Your task to perform on an android device: open app "Truecaller" (install if not already installed) Image 0: 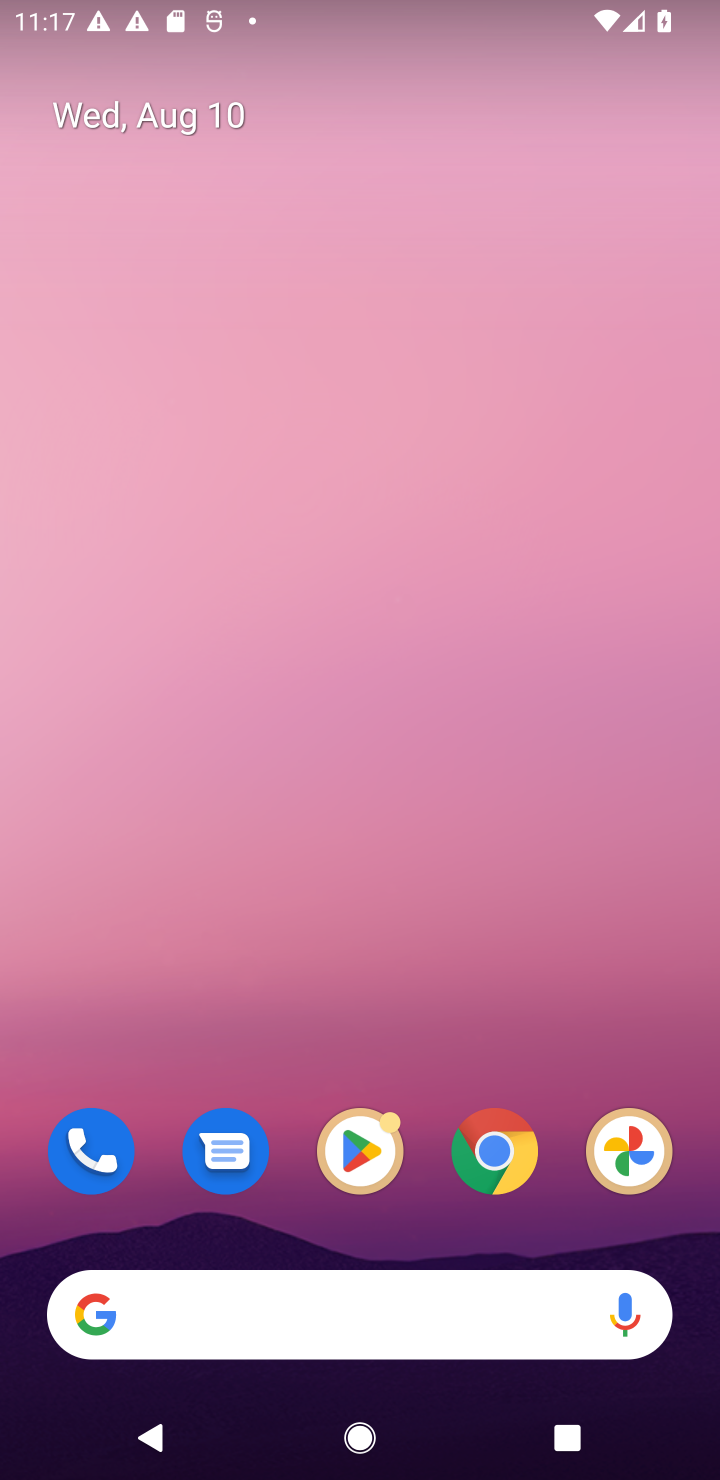
Step 0: press home button
Your task to perform on an android device: open app "Truecaller" (install if not already installed) Image 1: 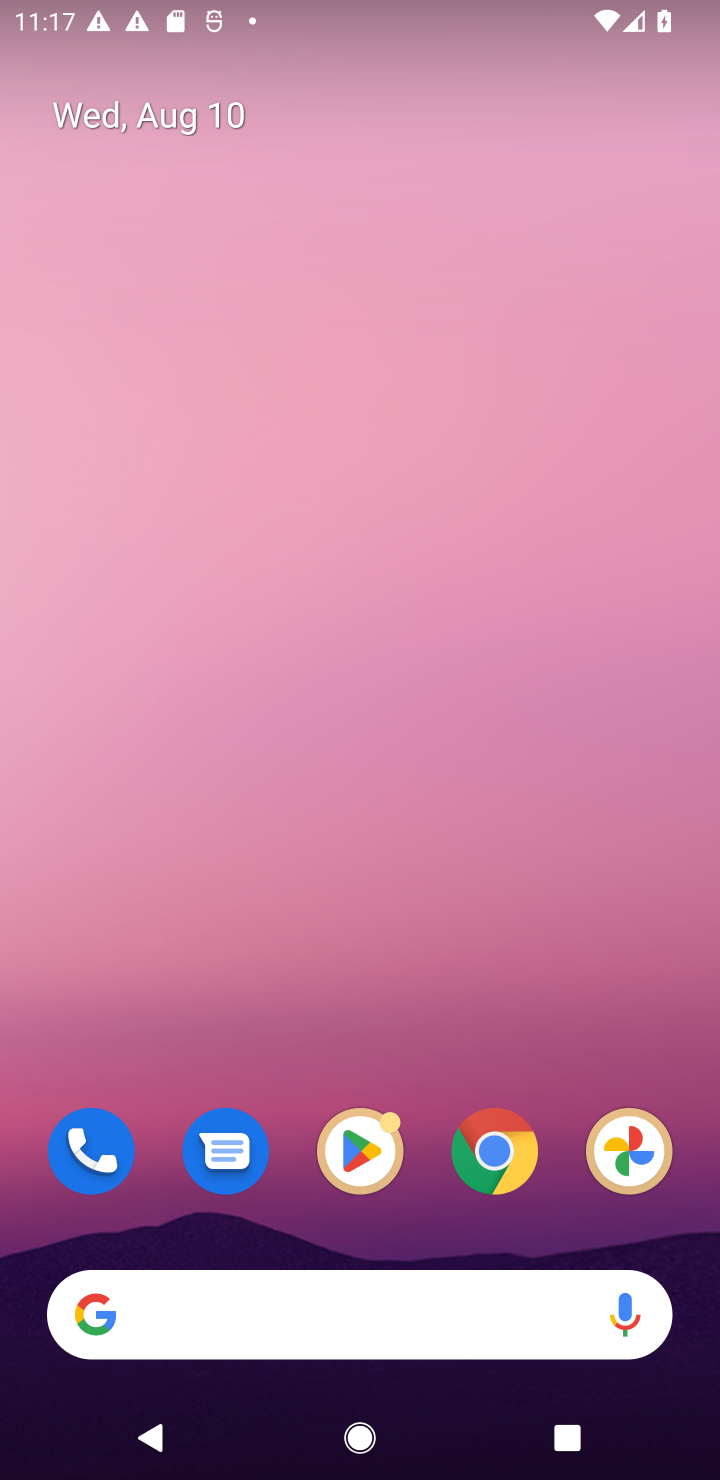
Step 1: drag from (419, 1220) to (382, 82)
Your task to perform on an android device: open app "Truecaller" (install if not already installed) Image 2: 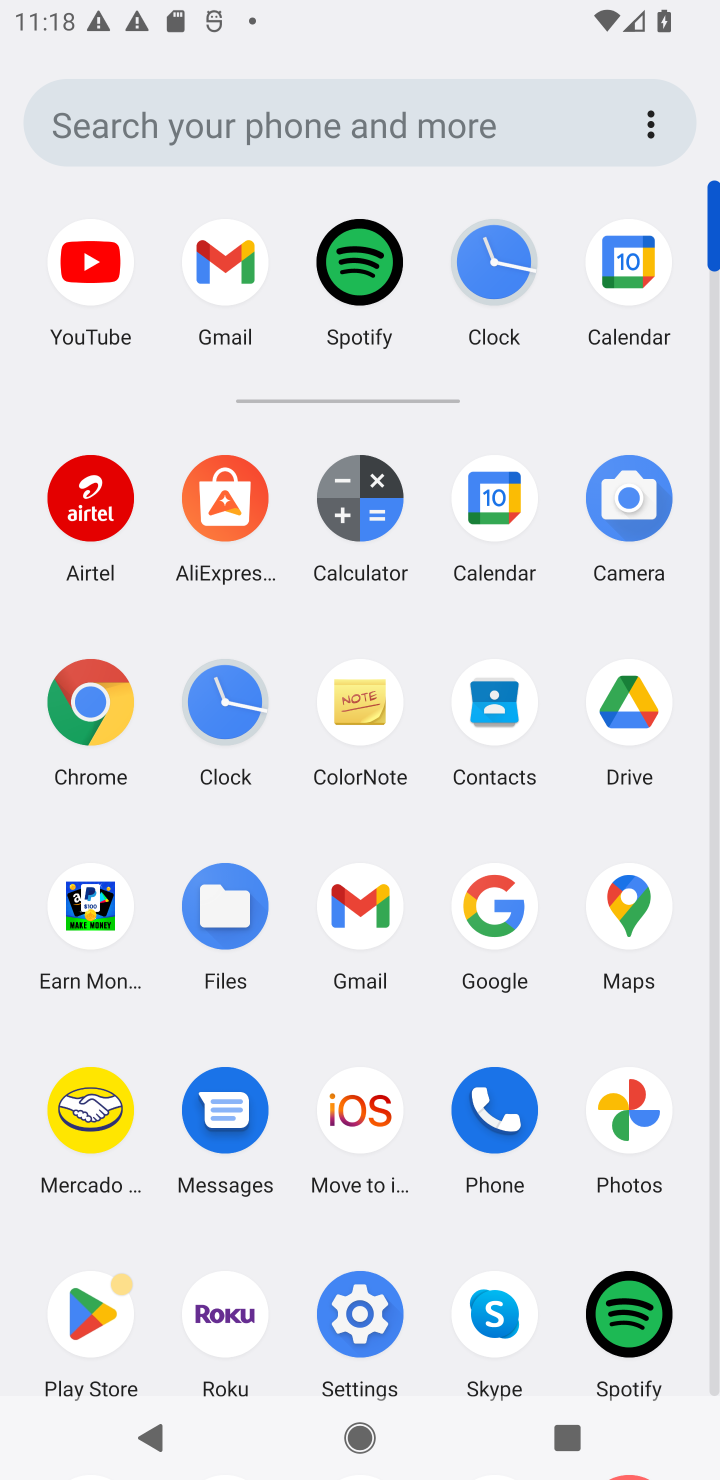
Step 2: click (81, 1301)
Your task to perform on an android device: open app "Truecaller" (install if not already installed) Image 3: 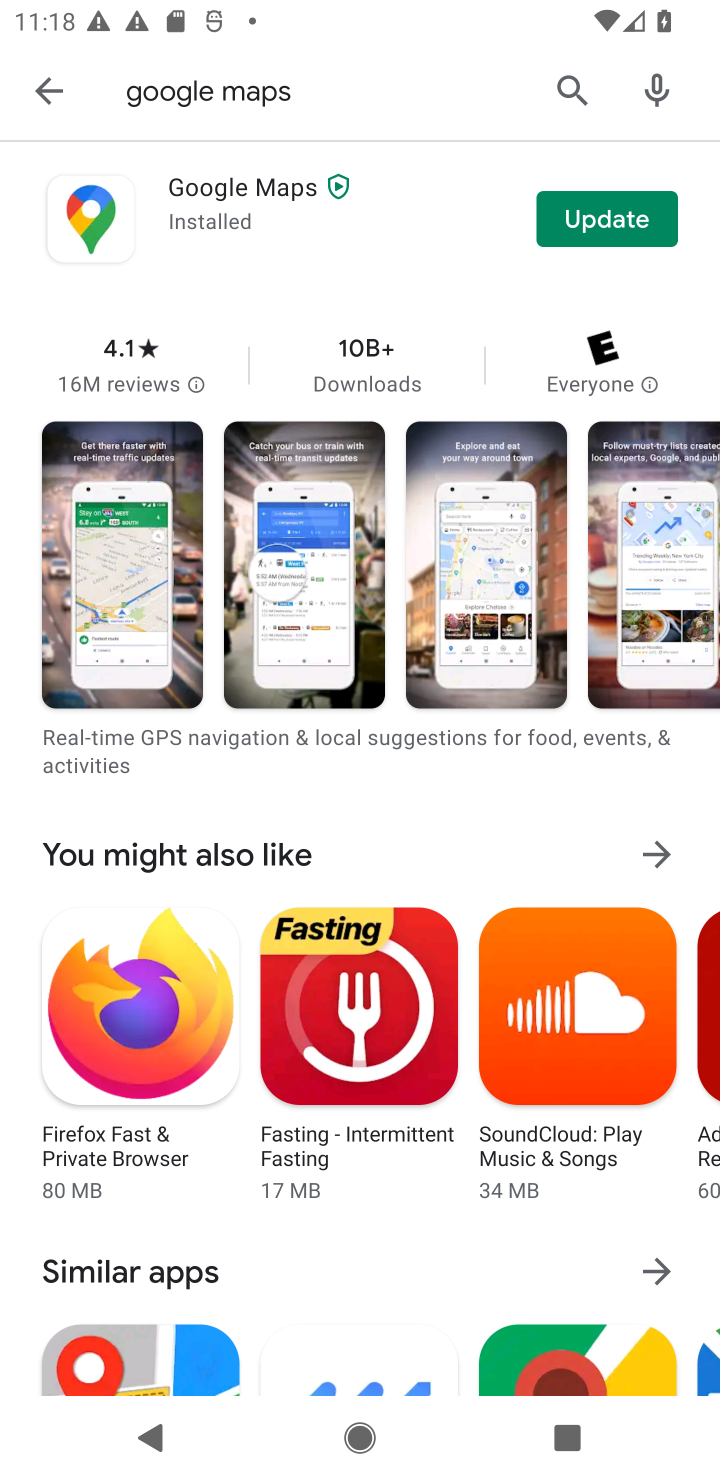
Step 3: click (549, 98)
Your task to perform on an android device: open app "Truecaller" (install if not already installed) Image 4: 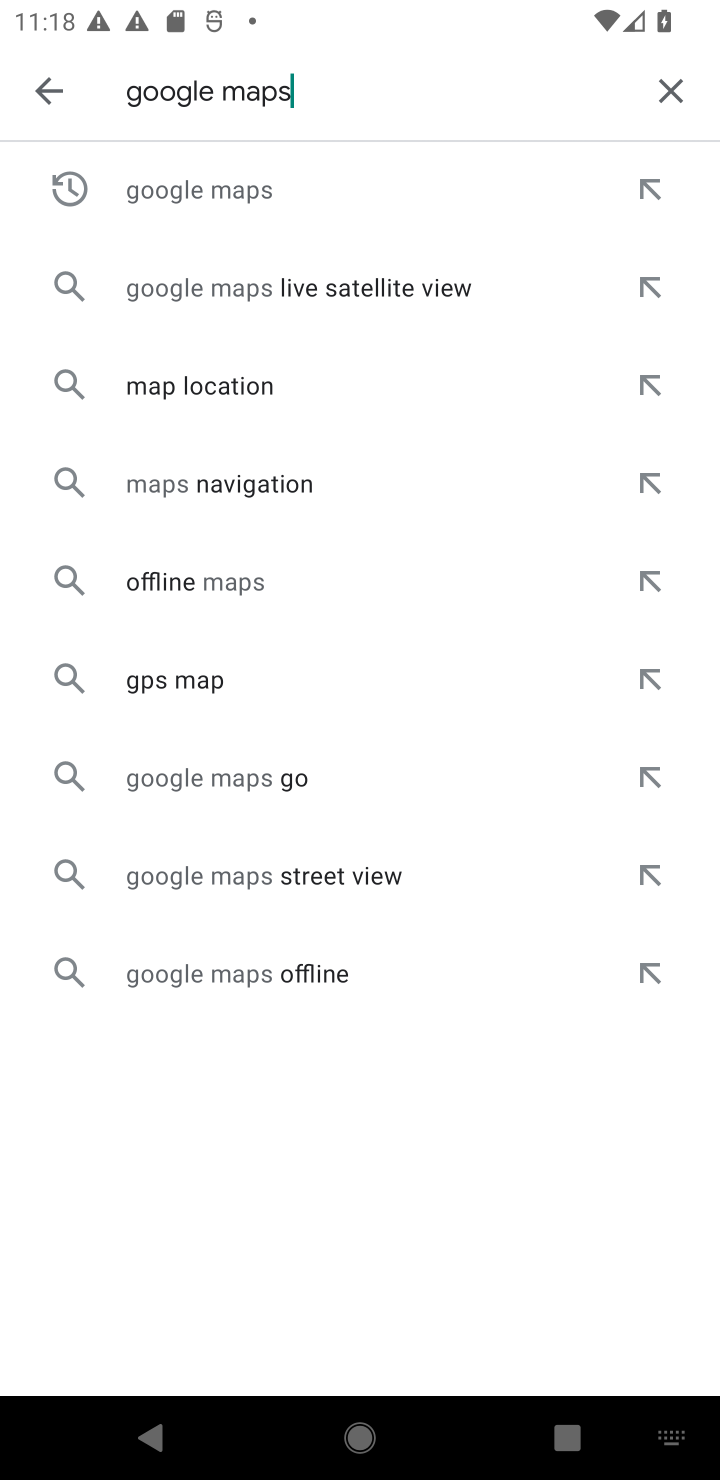
Step 4: click (688, 85)
Your task to perform on an android device: open app "Truecaller" (install if not already installed) Image 5: 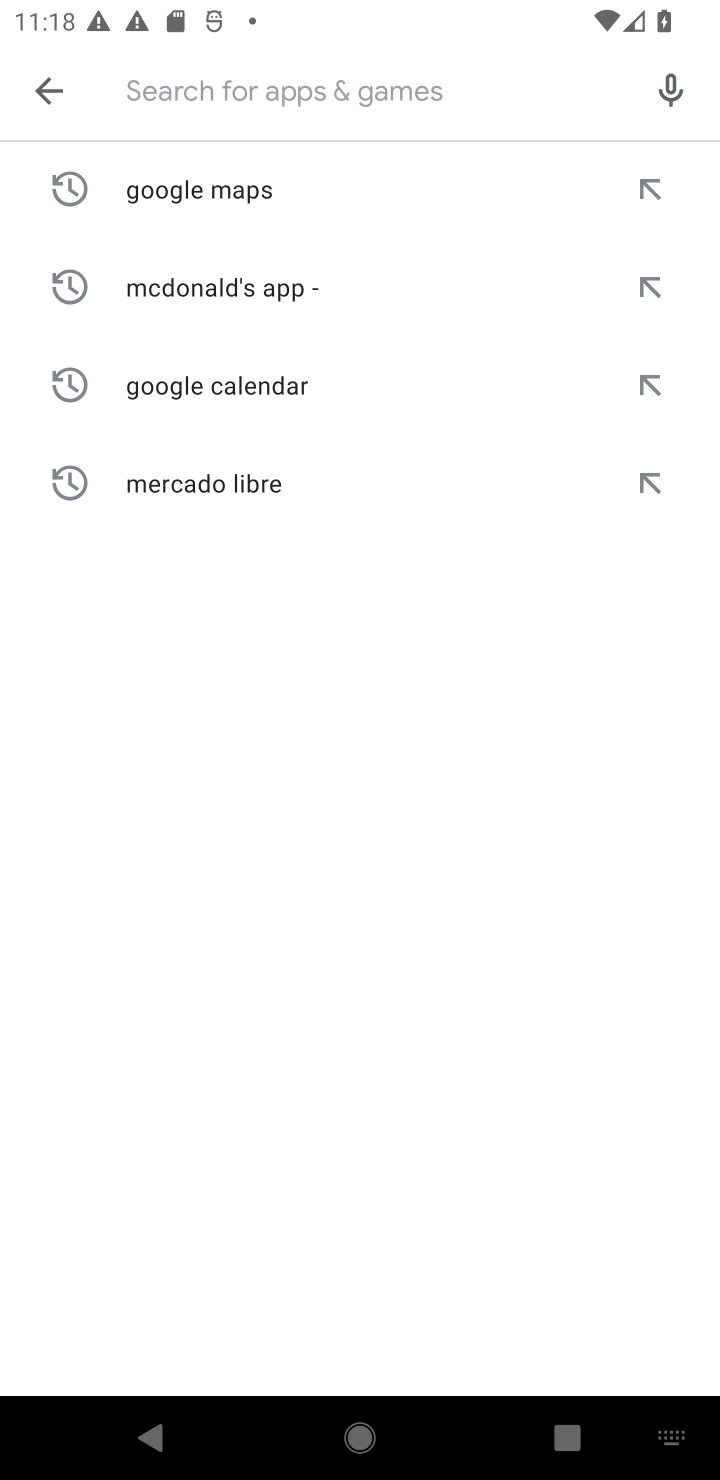
Step 5: type "Truecaller"
Your task to perform on an android device: open app "Truecaller" (install if not already installed) Image 6: 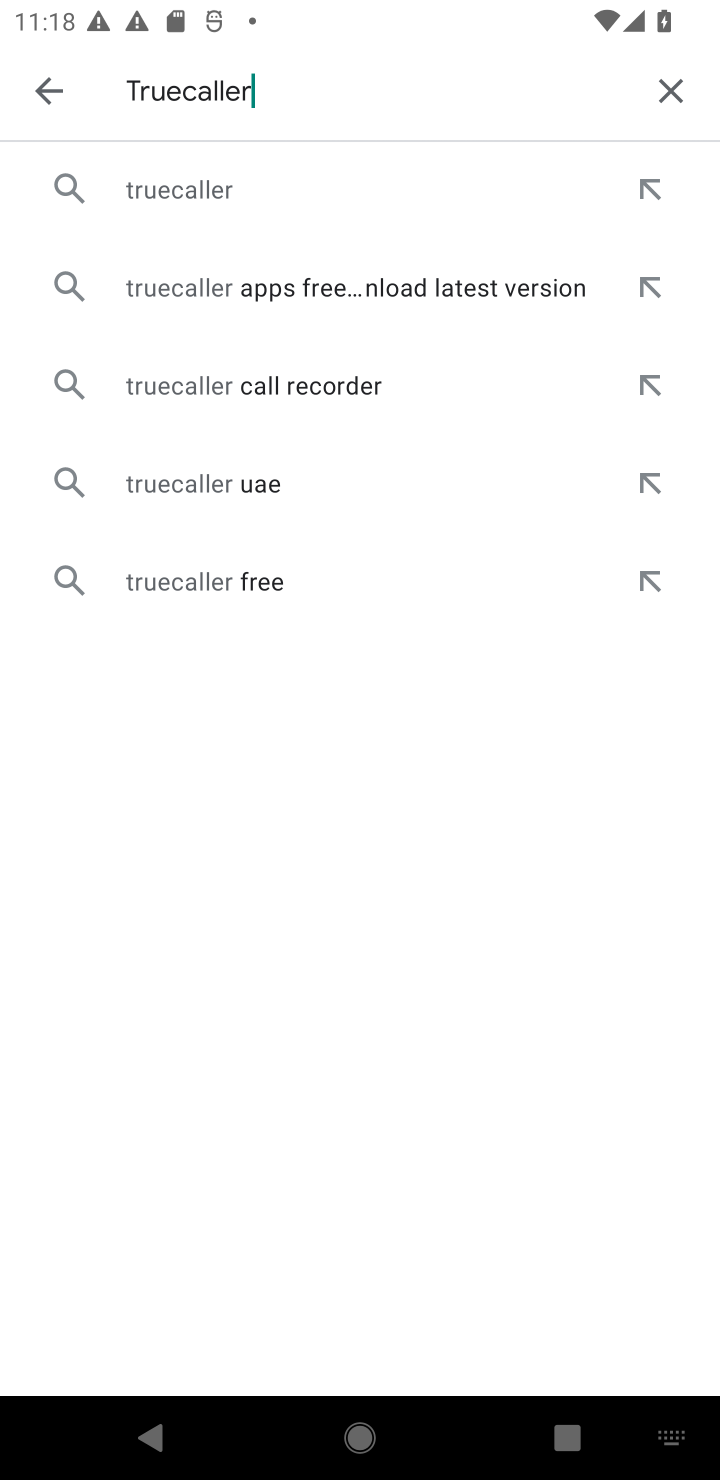
Step 6: click (238, 182)
Your task to perform on an android device: open app "Truecaller" (install if not already installed) Image 7: 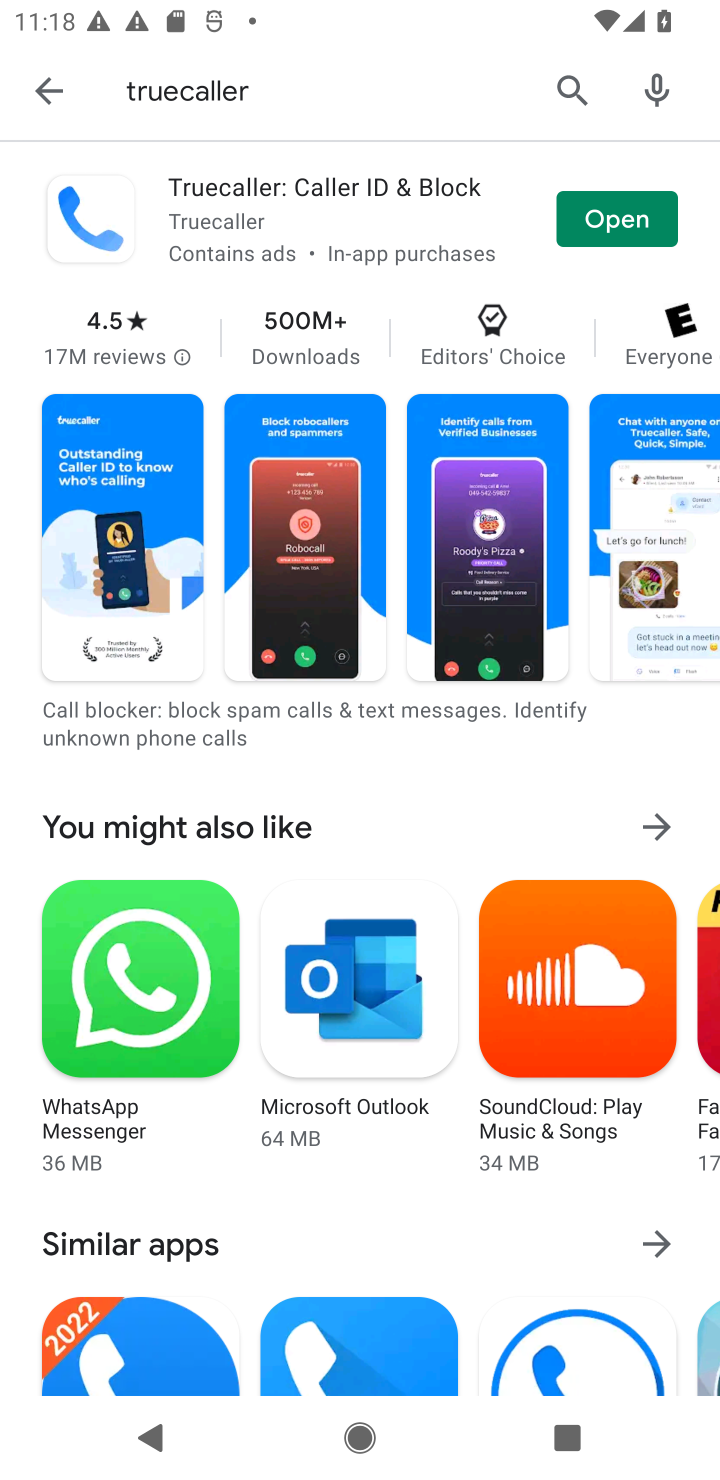
Step 7: click (604, 222)
Your task to perform on an android device: open app "Truecaller" (install if not already installed) Image 8: 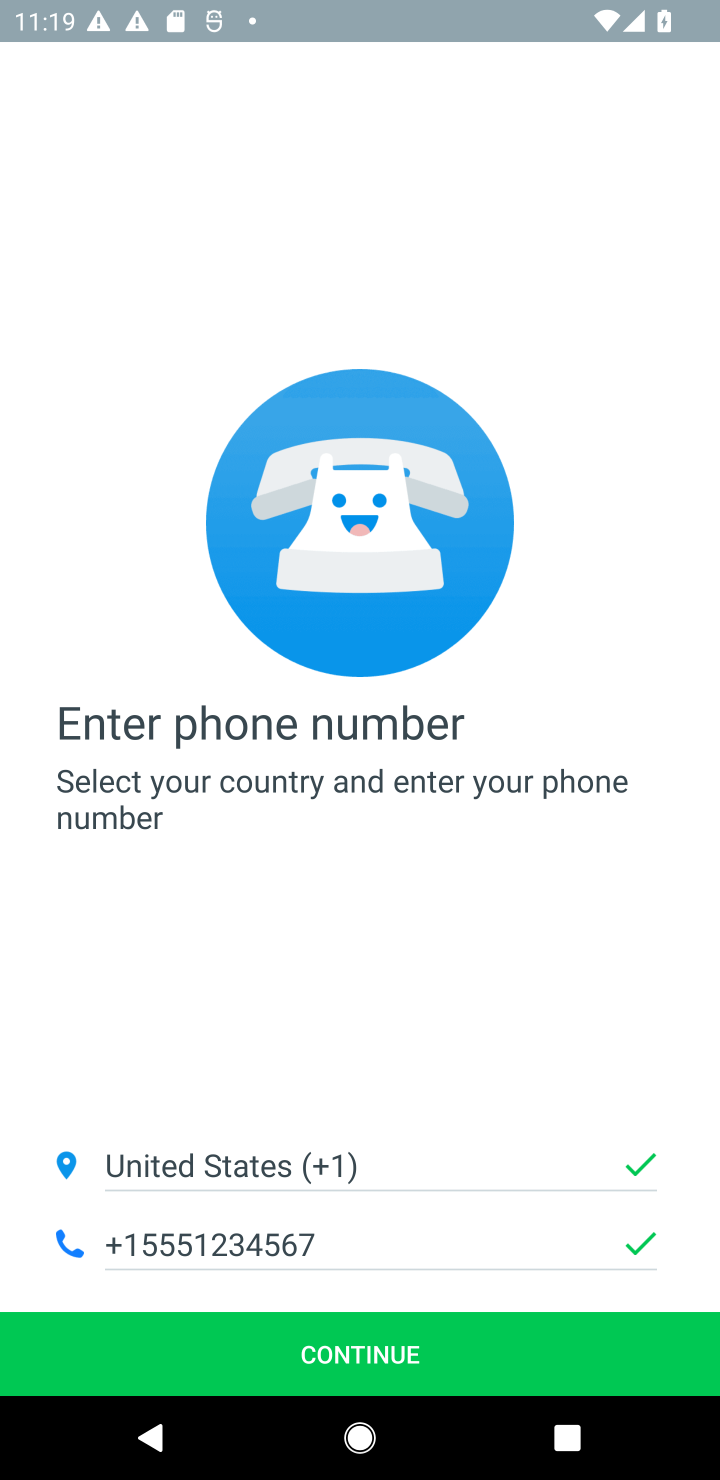
Step 8: press back button
Your task to perform on an android device: open app "Truecaller" (install if not already installed) Image 9: 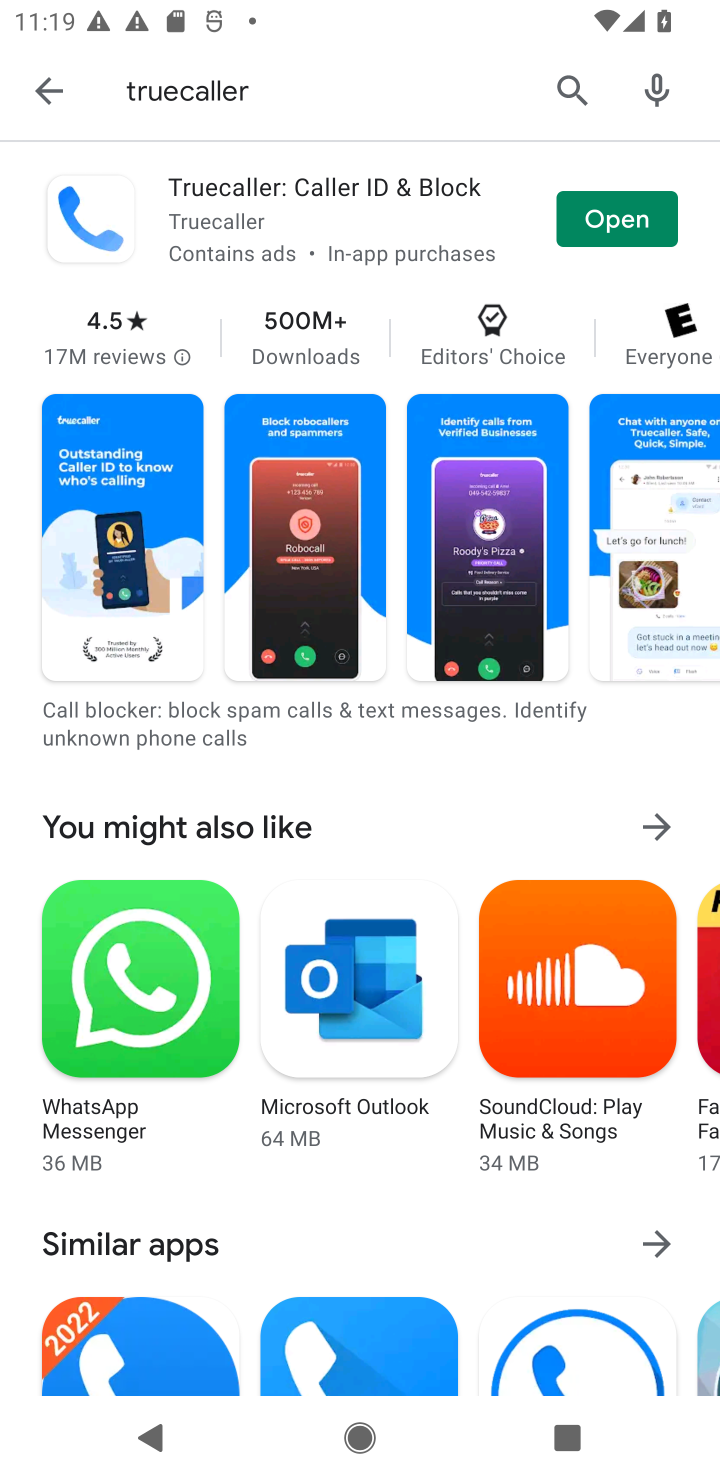
Step 9: click (592, 231)
Your task to perform on an android device: open app "Truecaller" (install if not already installed) Image 10: 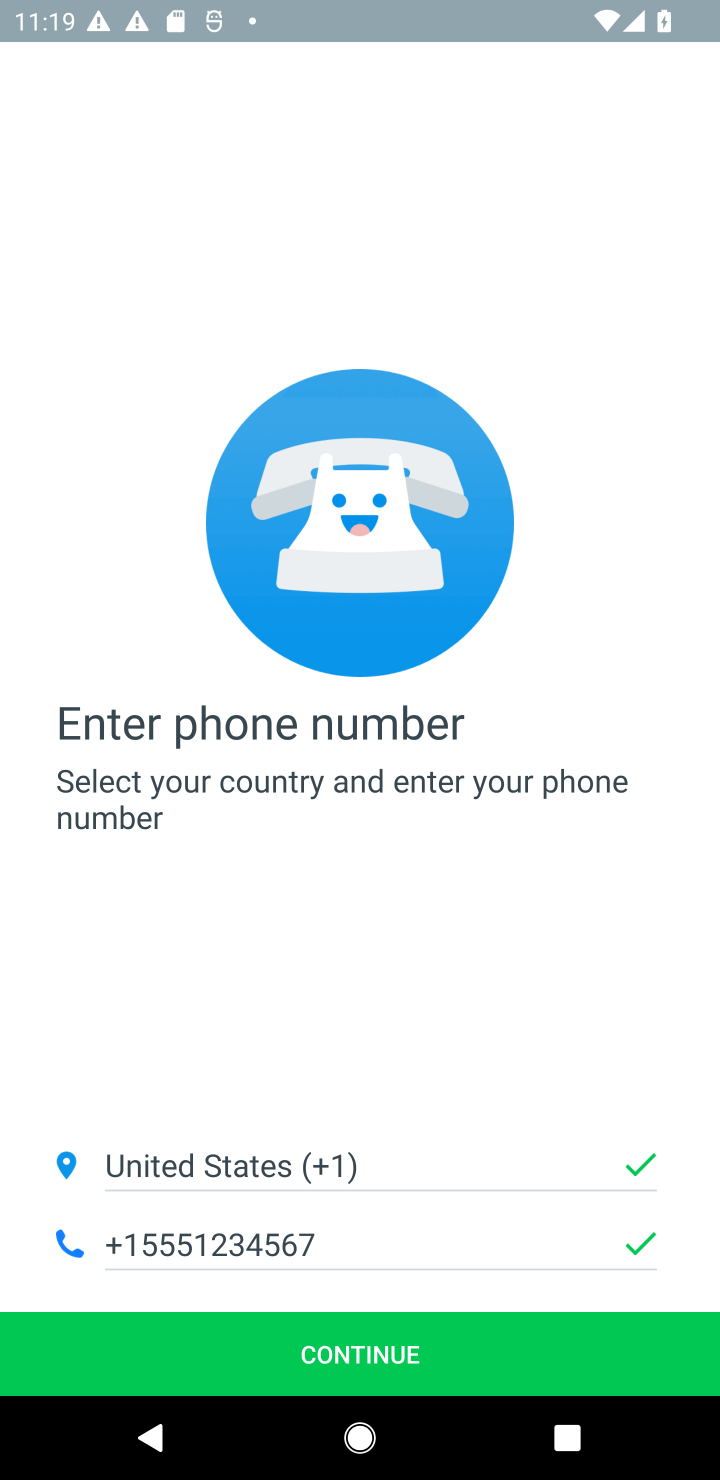
Step 10: click (335, 1346)
Your task to perform on an android device: open app "Truecaller" (install if not already installed) Image 11: 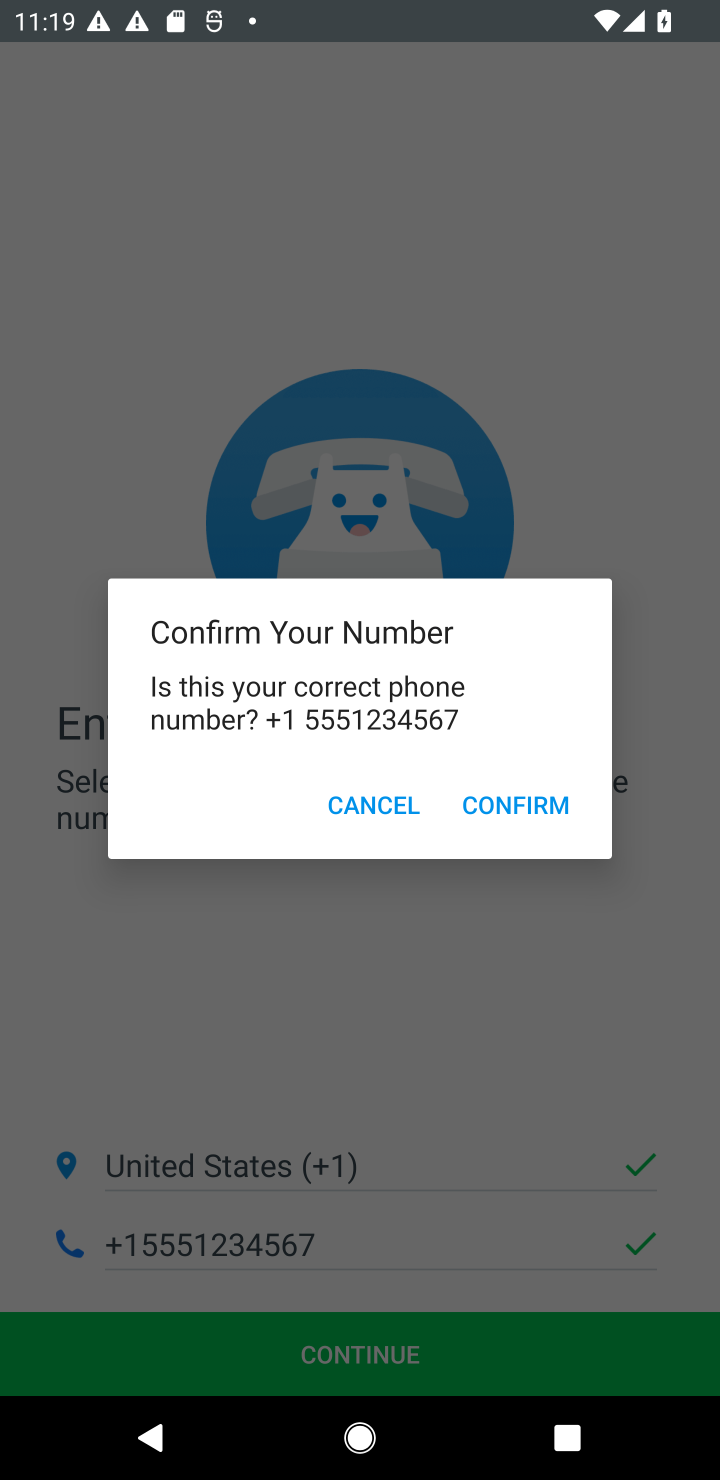
Step 11: click (387, 802)
Your task to perform on an android device: open app "Truecaller" (install if not already installed) Image 12: 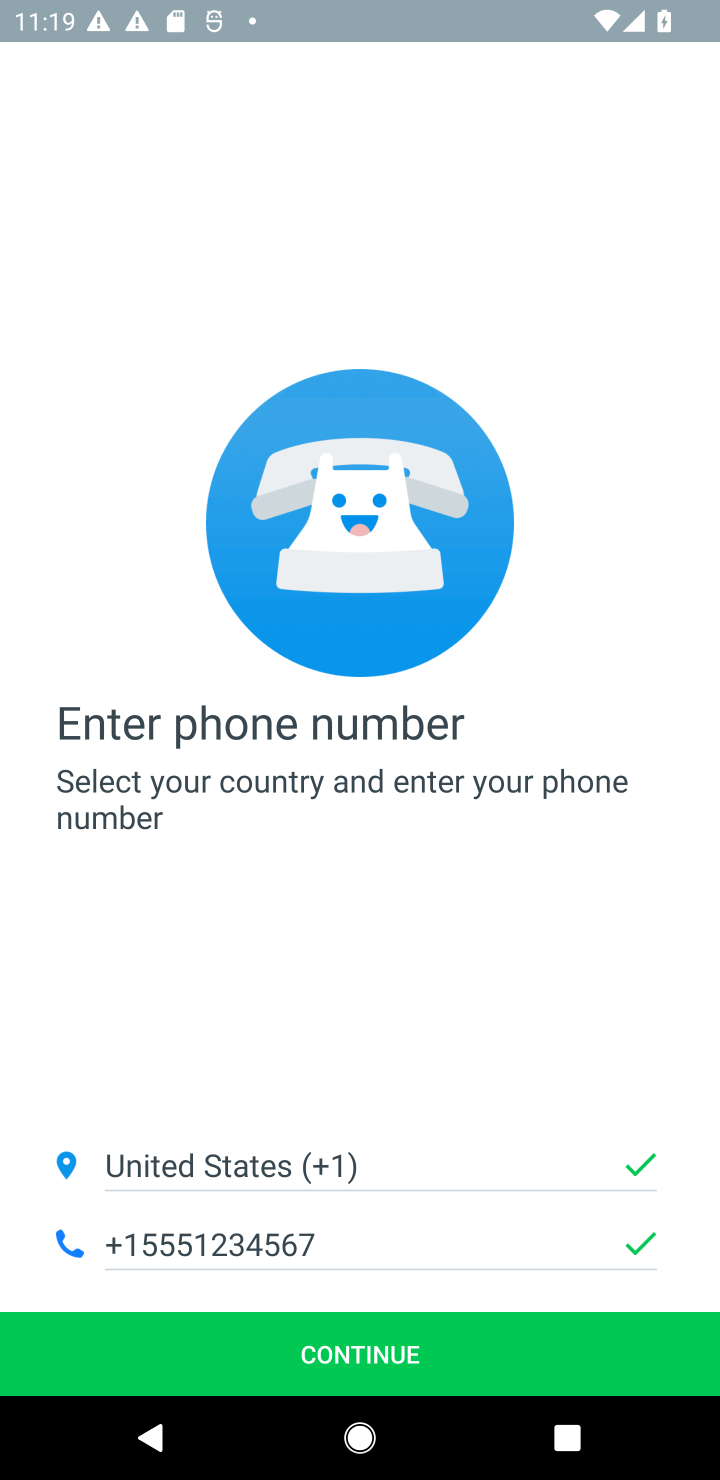
Step 12: click (631, 1234)
Your task to perform on an android device: open app "Truecaller" (install if not already installed) Image 13: 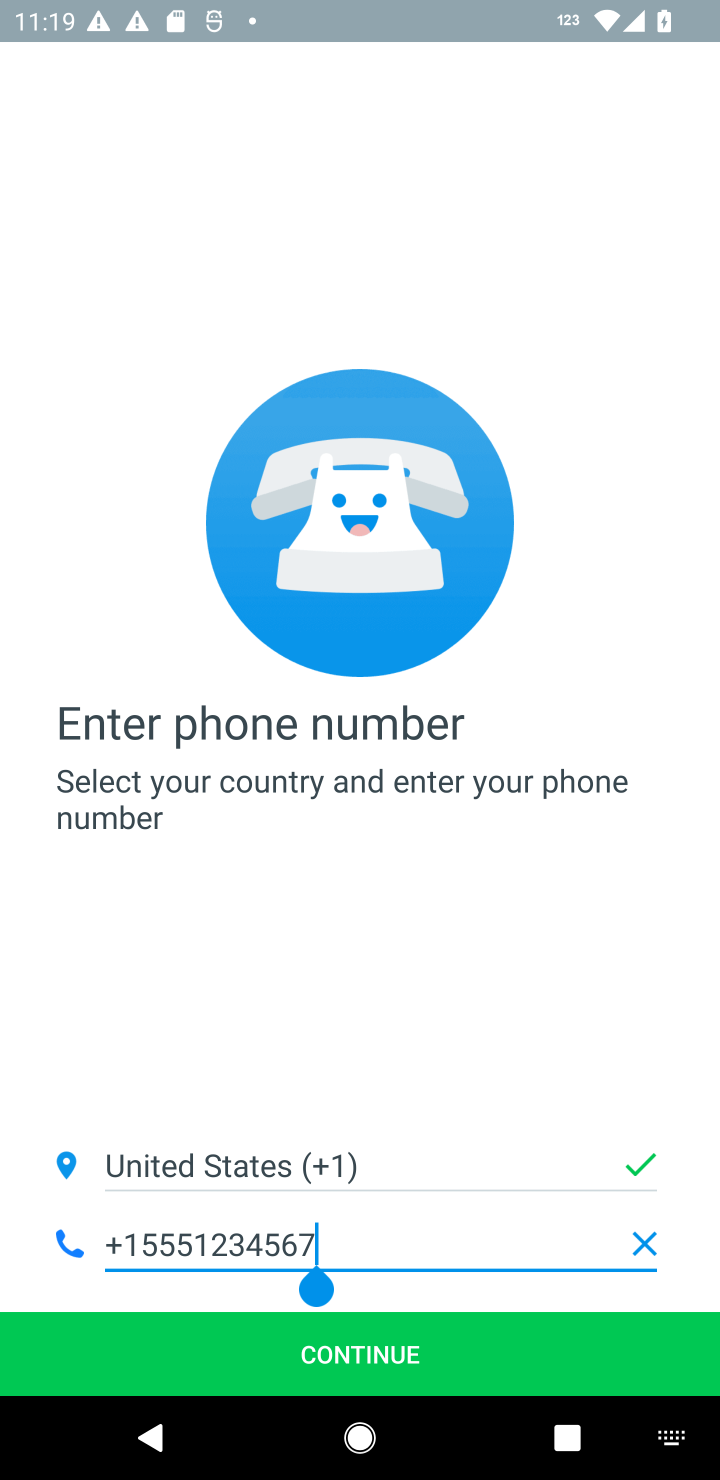
Step 13: click (621, 1263)
Your task to perform on an android device: open app "Truecaller" (install if not already installed) Image 14: 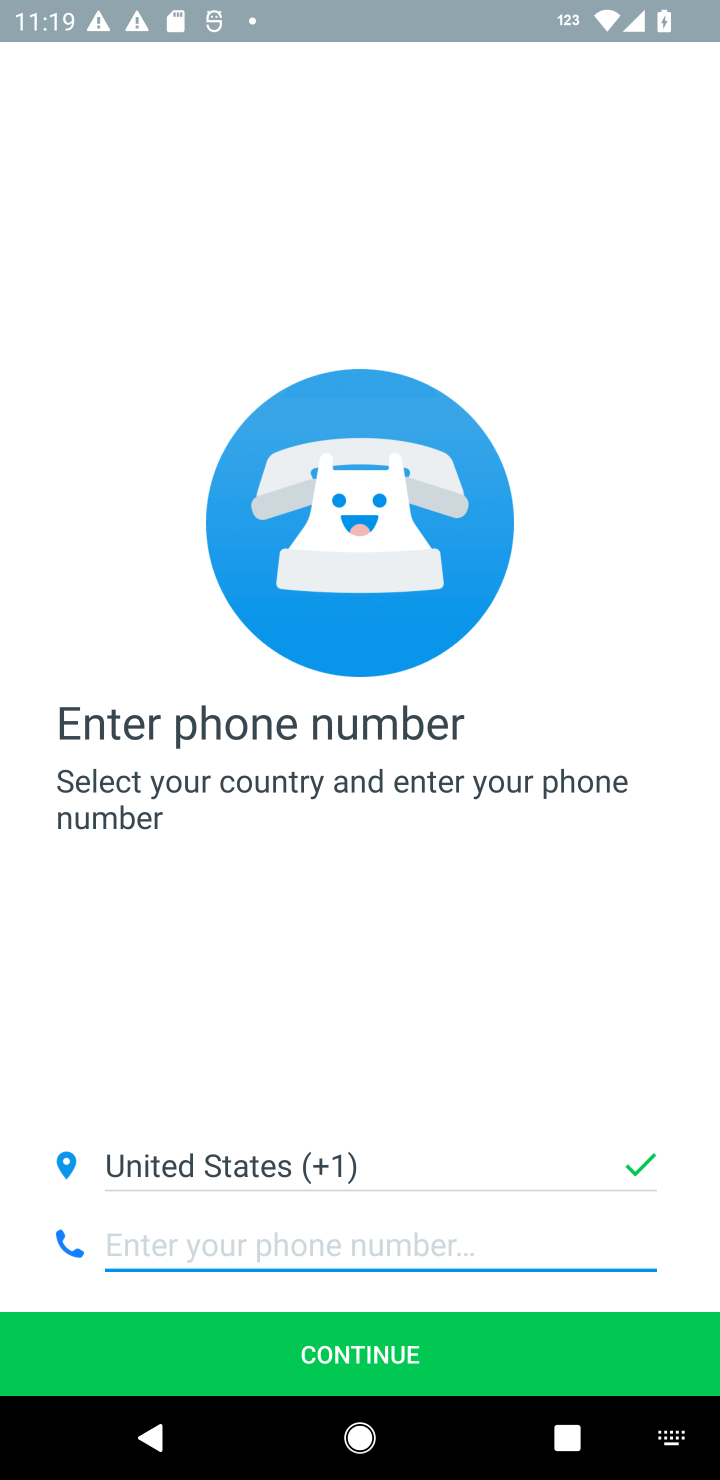
Step 14: click (641, 1173)
Your task to perform on an android device: open app "Truecaller" (install if not already installed) Image 15: 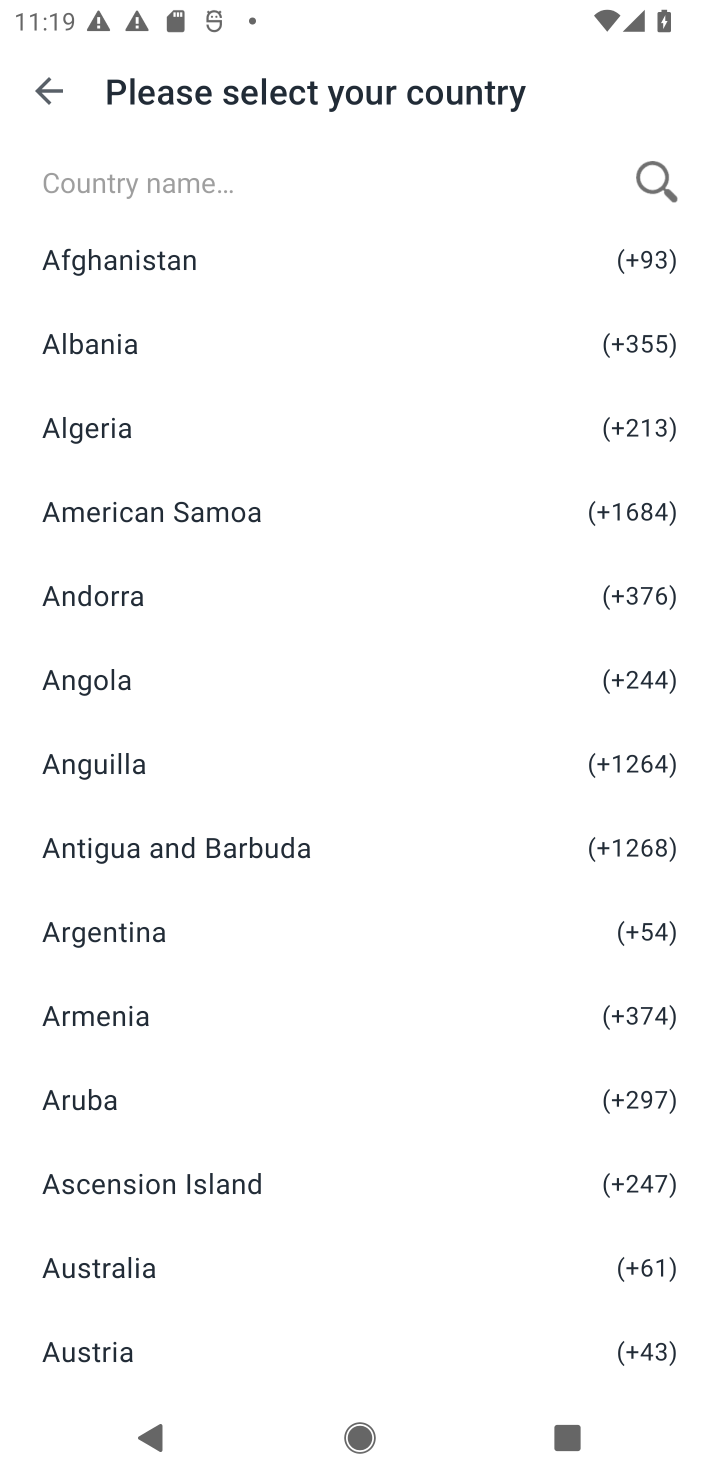
Step 15: click (47, 82)
Your task to perform on an android device: open app "Truecaller" (install if not already installed) Image 16: 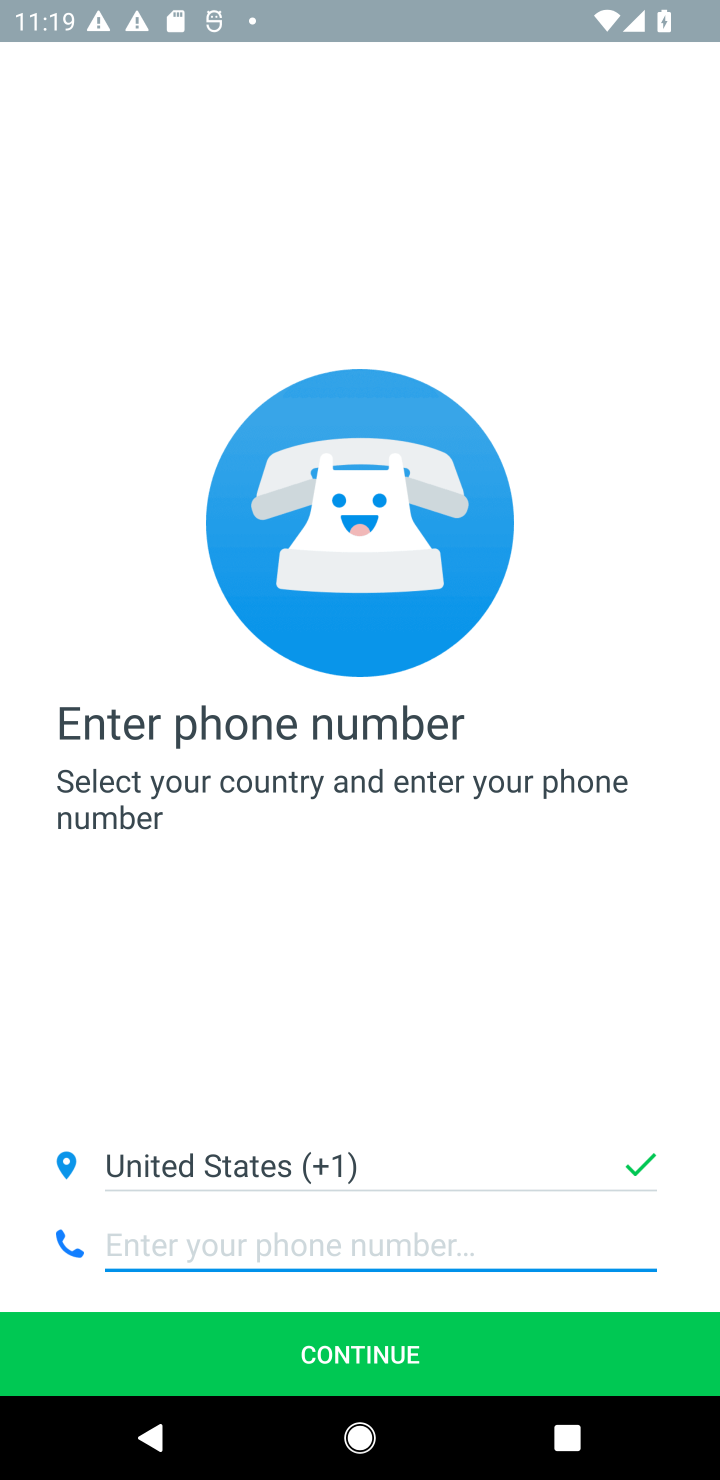
Step 16: click (354, 1369)
Your task to perform on an android device: open app "Truecaller" (install if not already installed) Image 17: 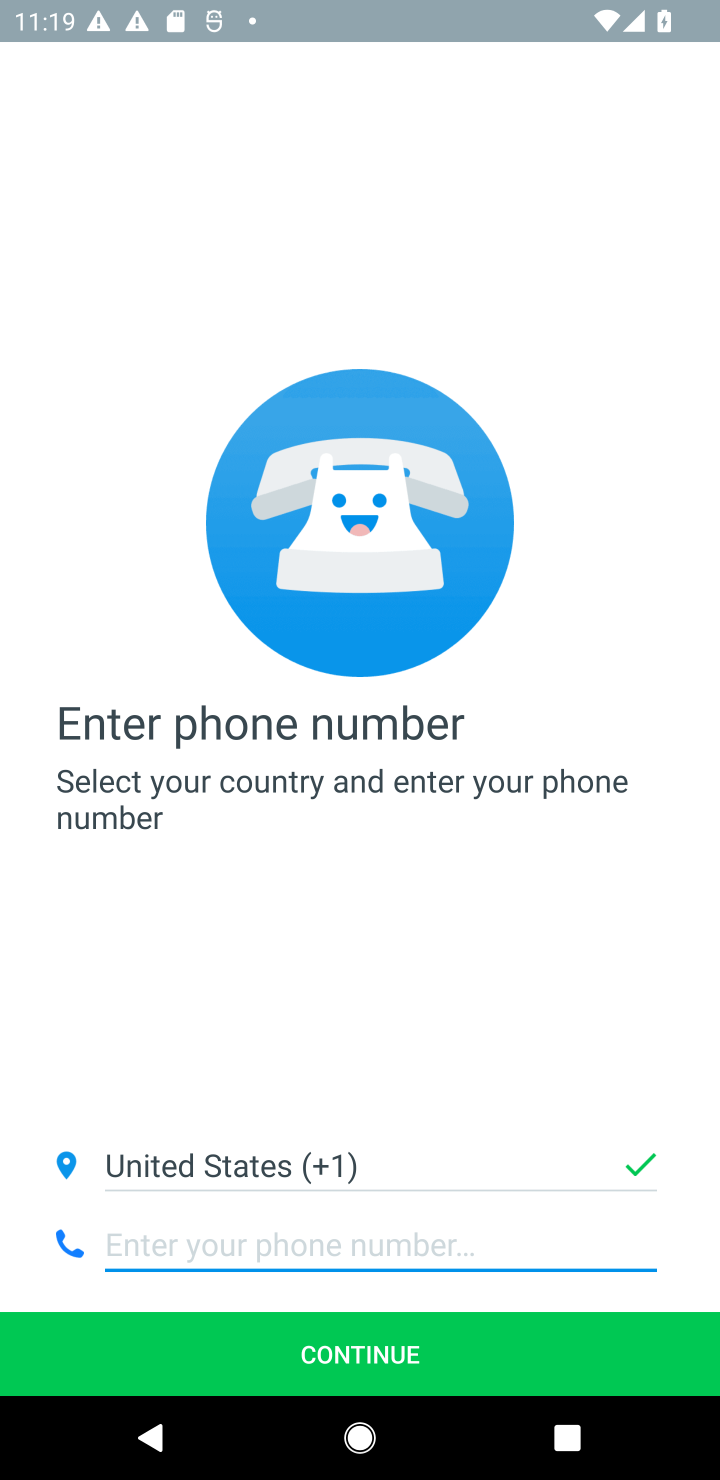
Step 17: task complete